Your task to perform on an android device: Open Chrome and go to the settings page Image 0: 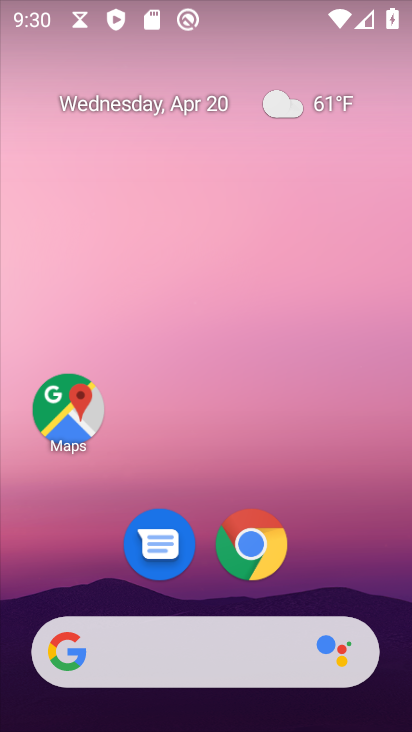
Step 0: drag from (161, 601) to (350, 21)
Your task to perform on an android device: Open Chrome and go to the settings page Image 1: 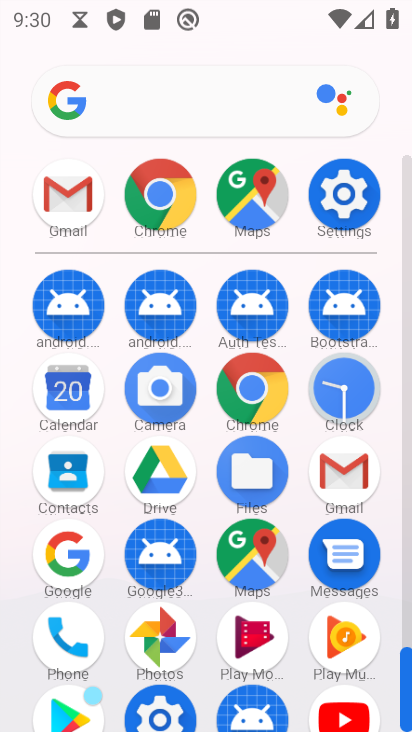
Step 1: click (165, 218)
Your task to perform on an android device: Open Chrome and go to the settings page Image 2: 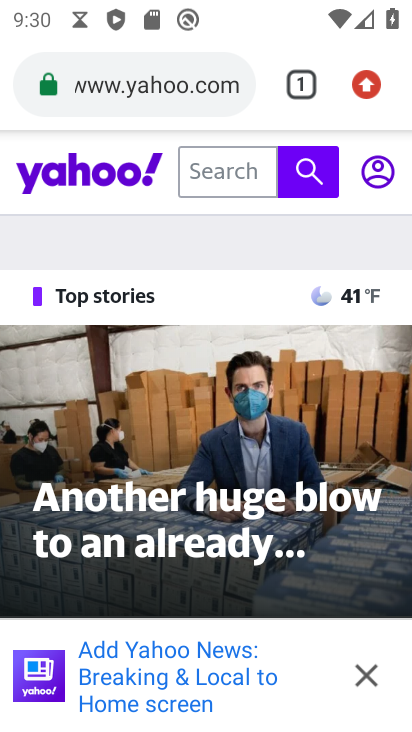
Step 2: click (363, 104)
Your task to perform on an android device: Open Chrome and go to the settings page Image 3: 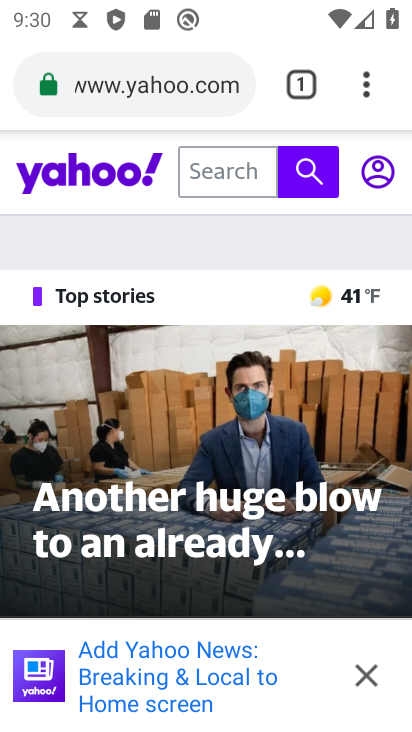
Step 3: click (359, 99)
Your task to perform on an android device: Open Chrome and go to the settings page Image 4: 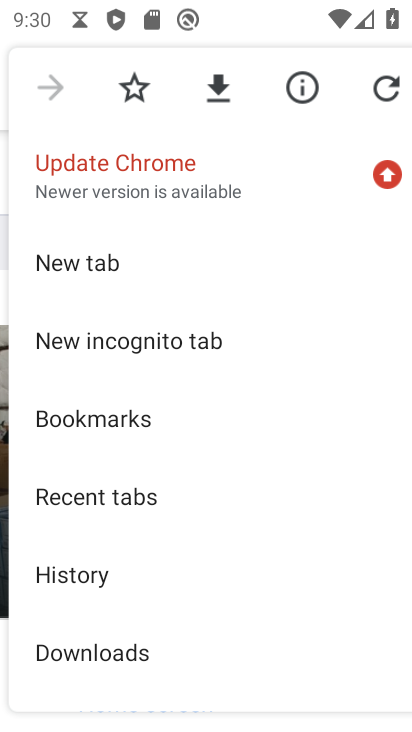
Step 4: drag from (161, 577) to (335, 204)
Your task to perform on an android device: Open Chrome and go to the settings page Image 5: 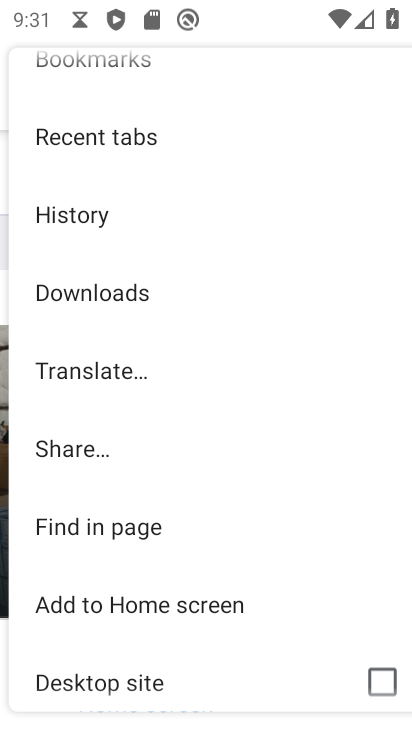
Step 5: drag from (155, 633) to (306, 173)
Your task to perform on an android device: Open Chrome and go to the settings page Image 6: 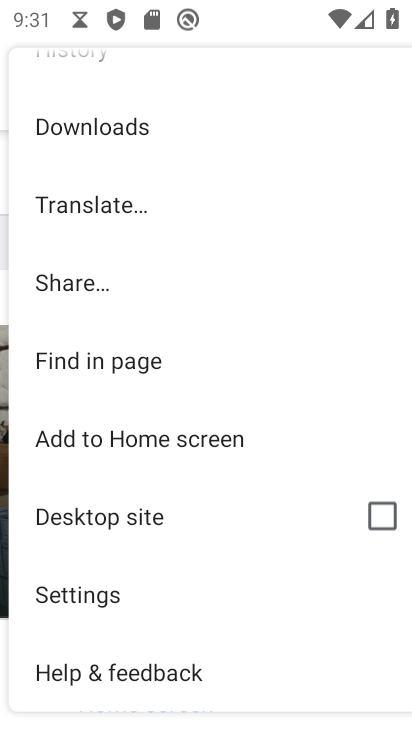
Step 6: click (112, 597)
Your task to perform on an android device: Open Chrome and go to the settings page Image 7: 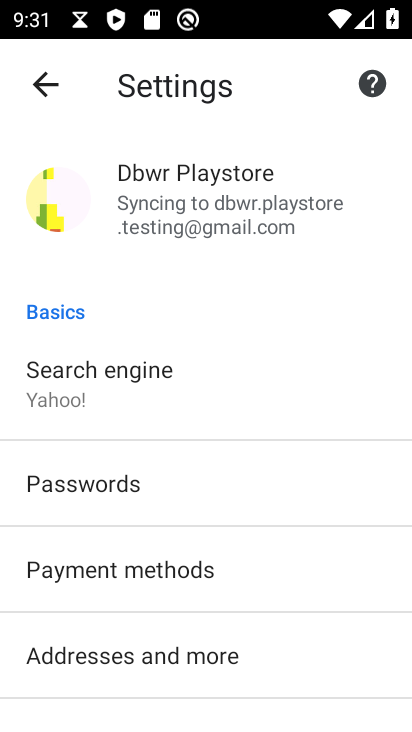
Step 7: task complete